Your task to perform on an android device: turn on bluetooth scan Image 0: 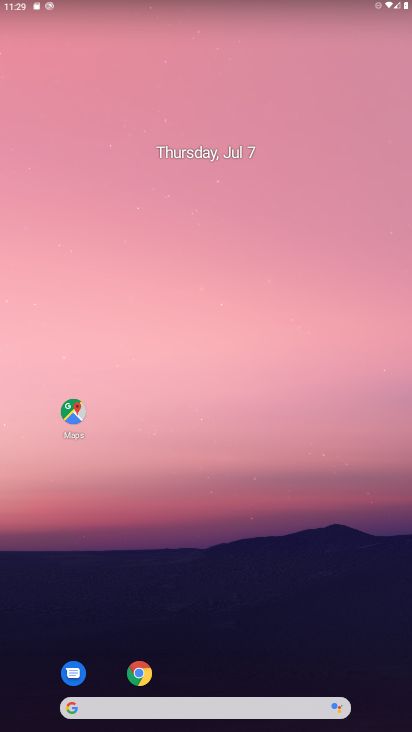
Step 0: drag from (383, 696) to (370, 138)
Your task to perform on an android device: turn on bluetooth scan Image 1: 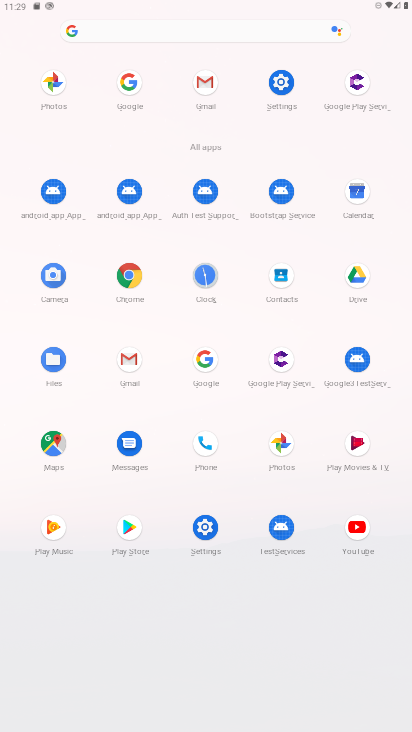
Step 1: click (285, 70)
Your task to perform on an android device: turn on bluetooth scan Image 2: 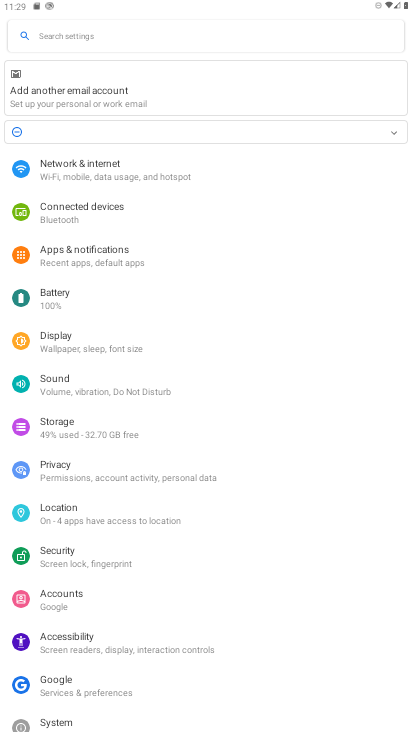
Step 2: click (53, 507)
Your task to perform on an android device: turn on bluetooth scan Image 3: 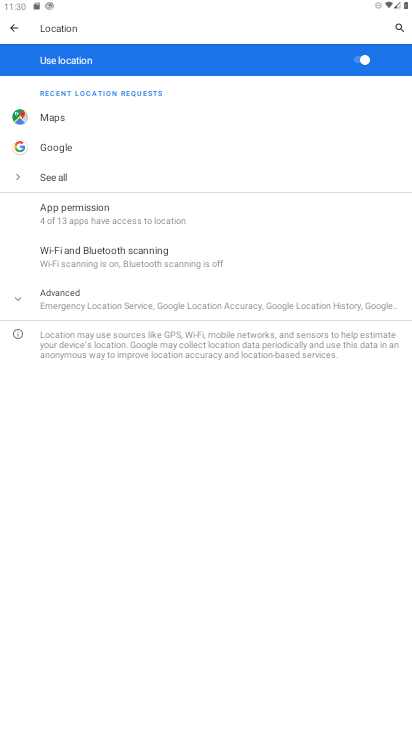
Step 3: click (78, 248)
Your task to perform on an android device: turn on bluetooth scan Image 4: 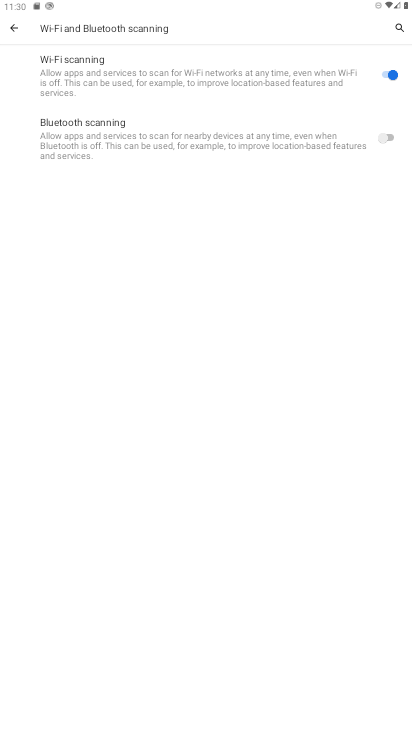
Step 4: click (392, 138)
Your task to perform on an android device: turn on bluetooth scan Image 5: 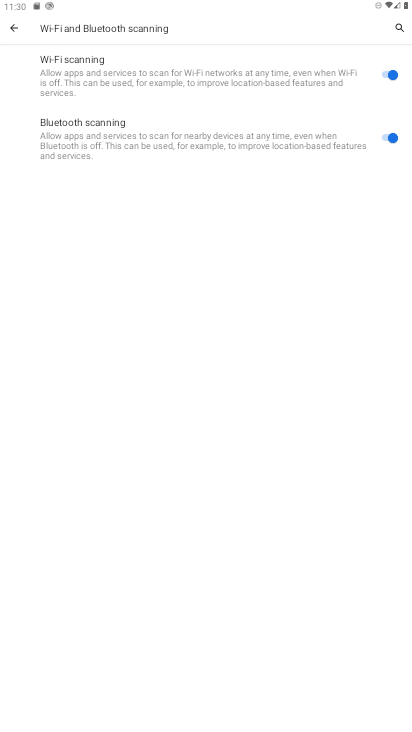
Step 5: task complete